Your task to perform on an android device: turn off smart reply in the gmail app Image 0: 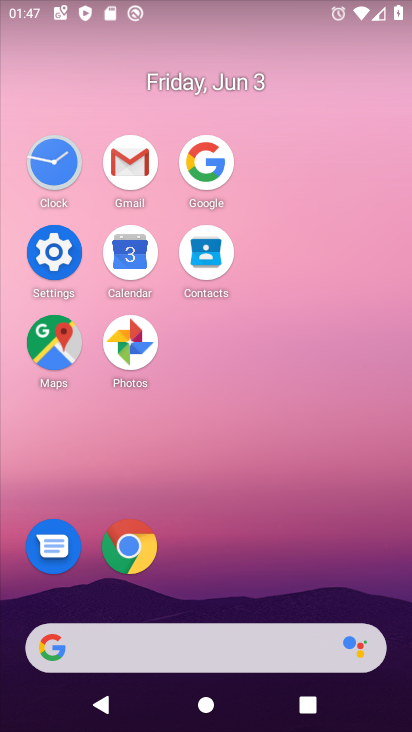
Step 0: click (134, 160)
Your task to perform on an android device: turn off smart reply in the gmail app Image 1: 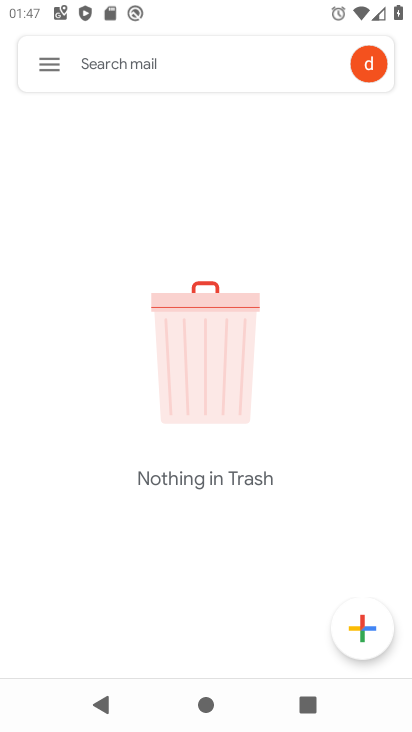
Step 1: click (56, 61)
Your task to perform on an android device: turn off smart reply in the gmail app Image 2: 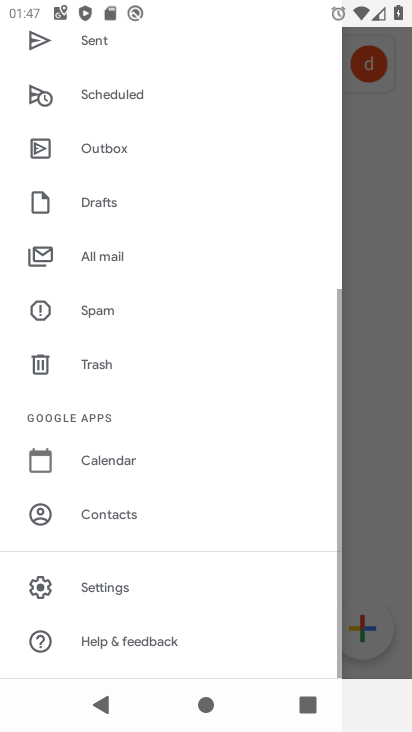
Step 2: click (159, 606)
Your task to perform on an android device: turn off smart reply in the gmail app Image 3: 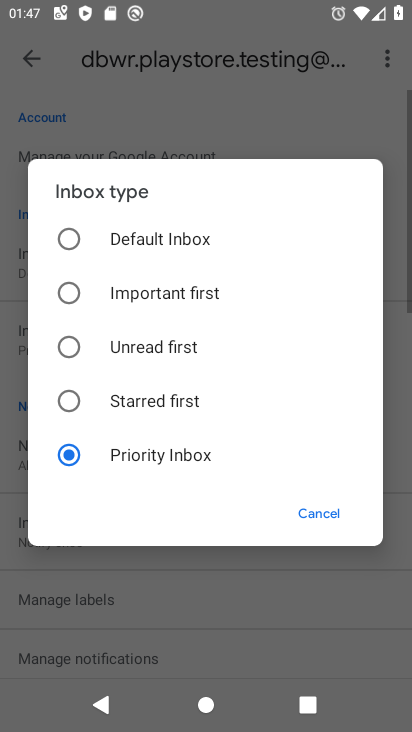
Step 3: click (337, 509)
Your task to perform on an android device: turn off smart reply in the gmail app Image 4: 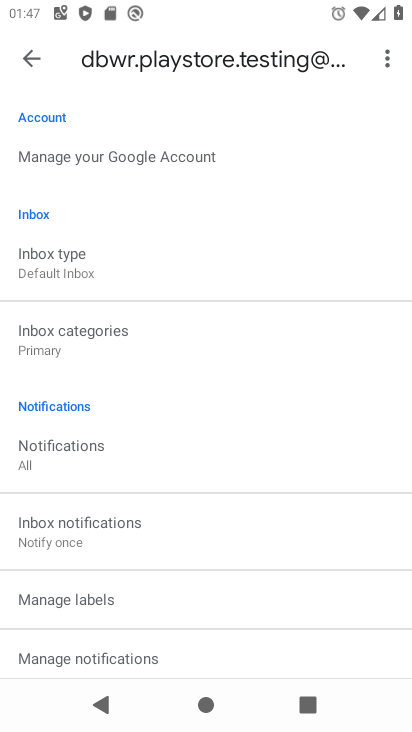
Step 4: drag from (242, 517) to (227, 43)
Your task to perform on an android device: turn off smart reply in the gmail app Image 5: 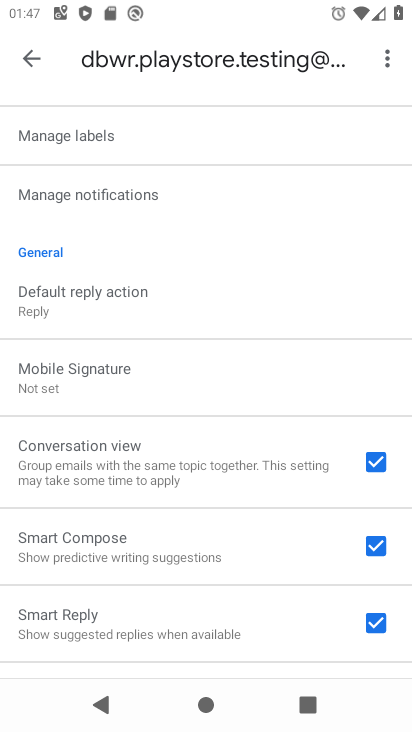
Step 5: click (373, 620)
Your task to perform on an android device: turn off smart reply in the gmail app Image 6: 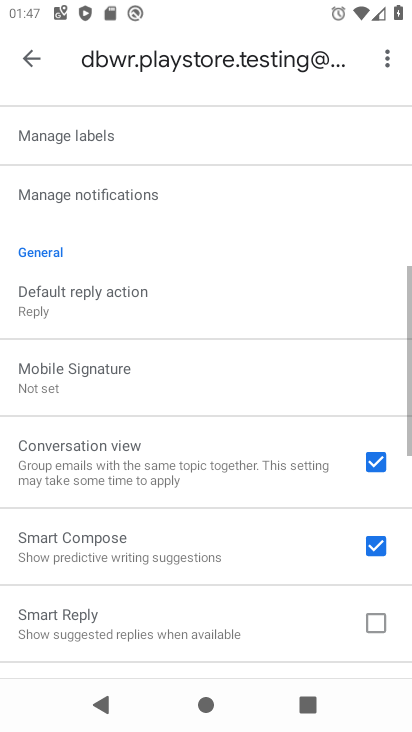
Step 6: task complete